Your task to perform on an android device: check android version Image 0: 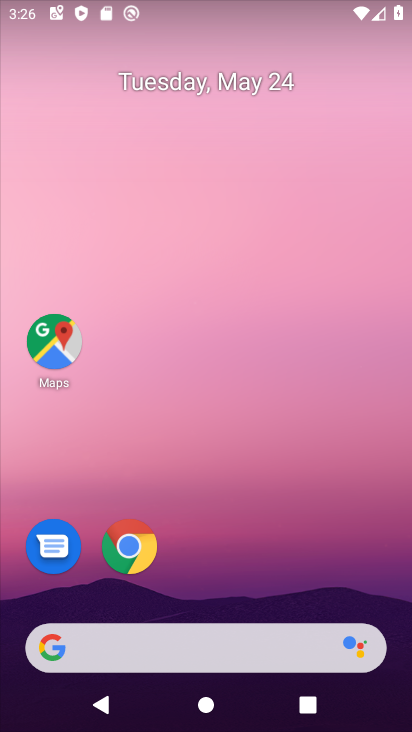
Step 0: drag from (301, 583) to (187, 53)
Your task to perform on an android device: check android version Image 1: 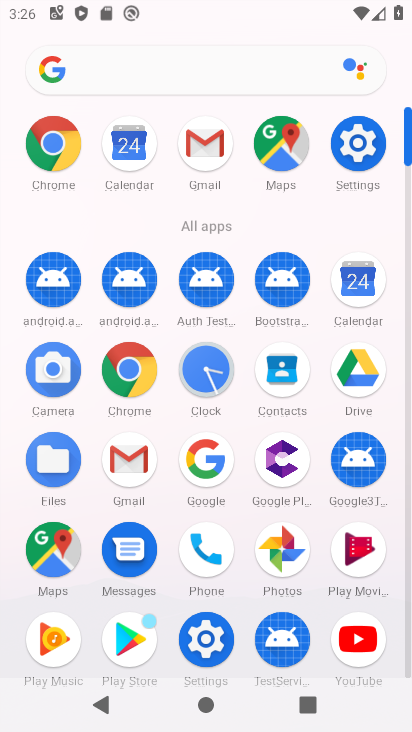
Step 1: click (366, 125)
Your task to perform on an android device: check android version Image 2: 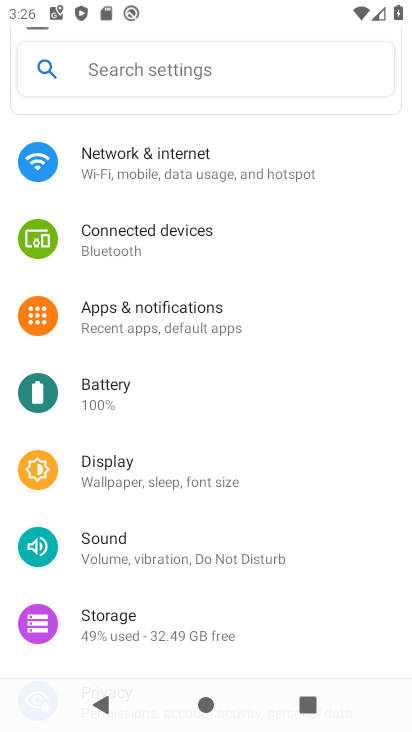
Step 2: drag from (215, 604) to (194, 67)
Your task to perform on an android device: check android version Image 3: 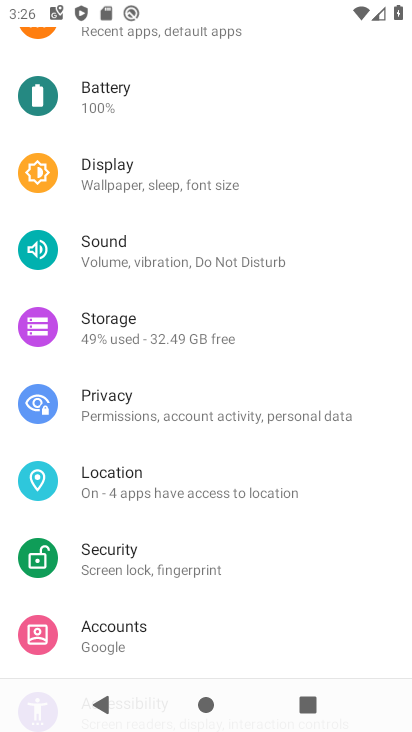
Step 3: drag from (234, 573) to (201, 161)
Your task to perform on an android device: check android version Image 4: 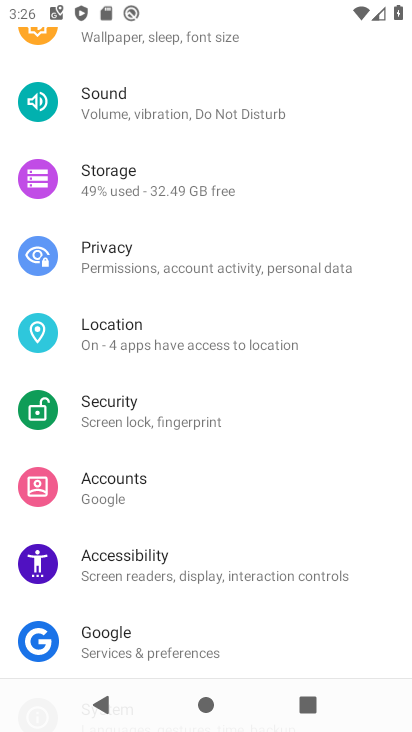
Step 4: drag from (256, 591) to (193, 108)
Your task to perform on an android device: check android version Image 5: 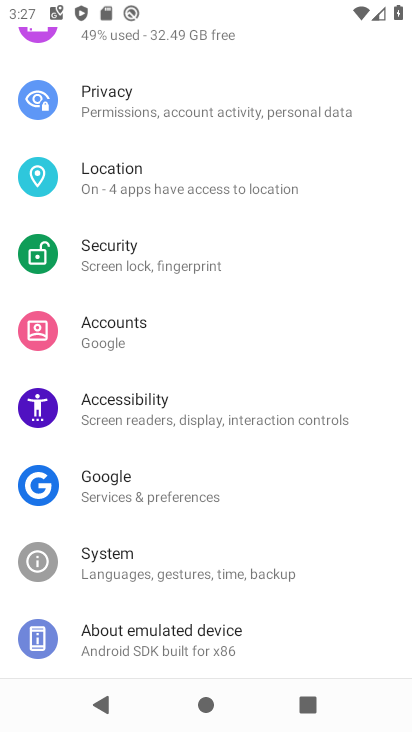
Step 5: click (185, 633)
Your task to perform on an android device: check android version Image 6: 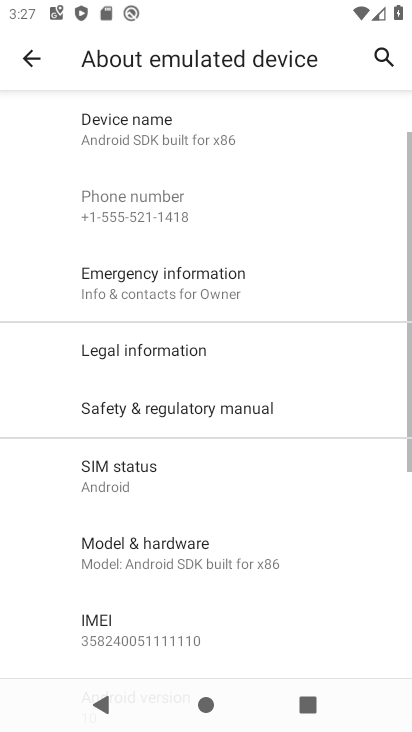
Step 6: drag from (198, 596) to (202, 194)
Your task to perform on an android device: check android version Image 7: 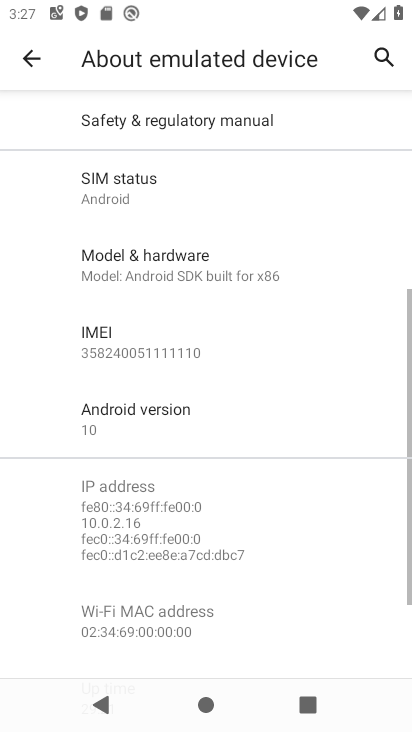
Step 7: click (199, 401)
Your task to perform on an android device: check android version Image 8: 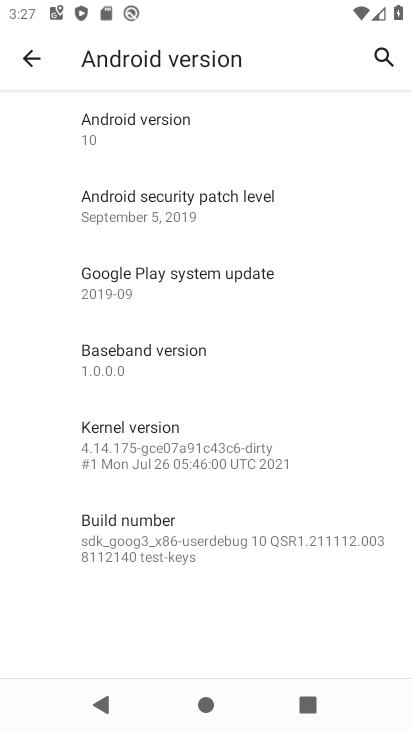
Step 8: task complete